Your task to perform on an android device: toggle javascript in the chrome app Image 0: 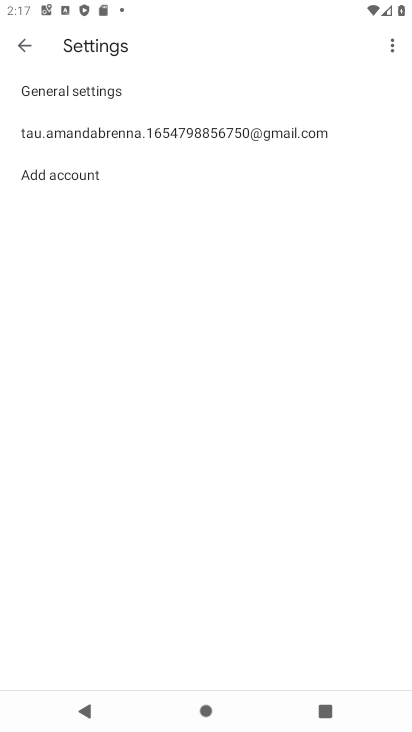
Step 0: press home button
Your task to perform on an android device: toggle javascript in the chrome app Image 1: 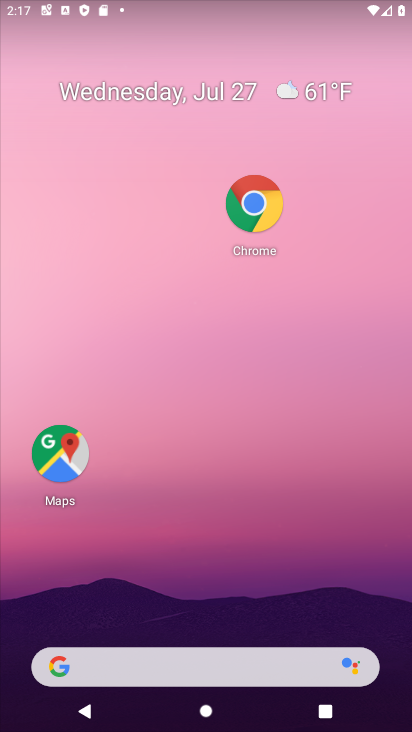
Step 1: click (254, 229)
Your task to perform on an android device: toggle javascript in the chrome app Image 2: 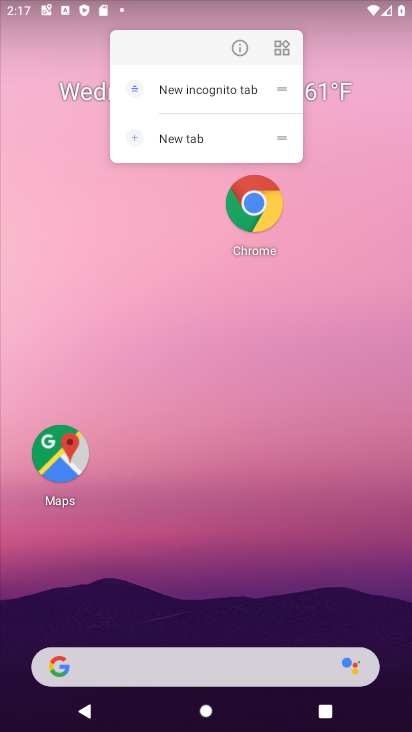
Step 2: click (255, 228)
Your task to perform on an android device: toggle javascript in the chrome app Image 3: 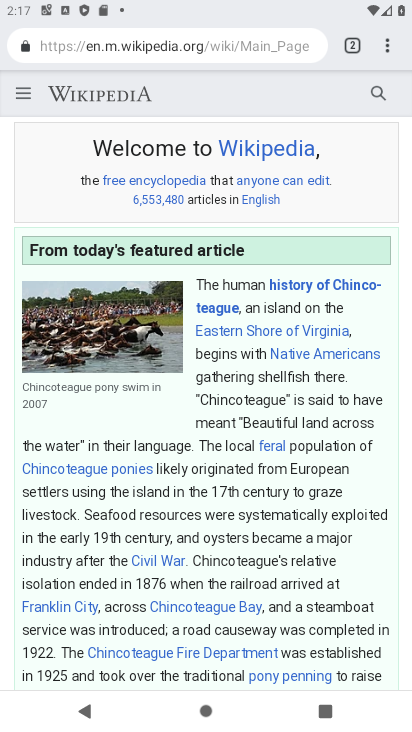
Step 3: click (392, 43)
Your task to perform on an android device: toggle javascript in the chrome app Image 4: 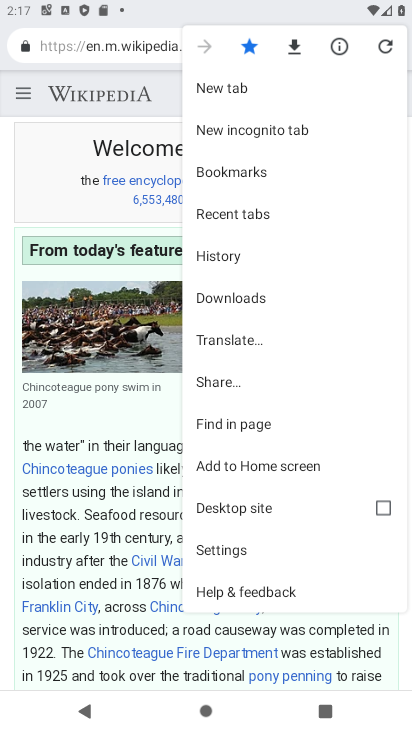
Step 4: click (222, 557)
Your task to perform on an android device: toggle javascript in the chrome app Image 5: 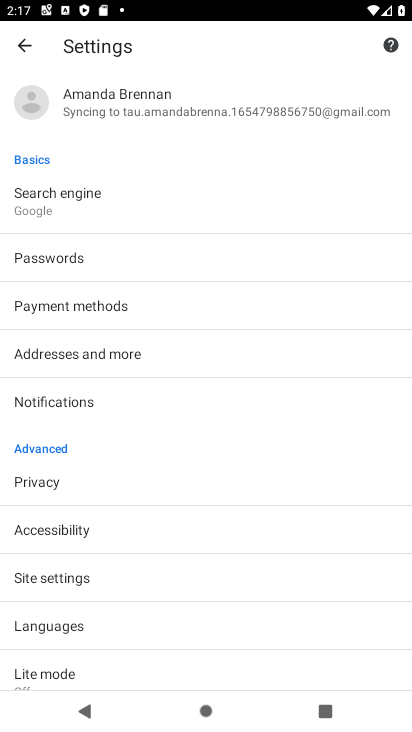
Step 5: click (96, 572)
Your task to perform on an android device: toggle javascript in the chrome app Image 6: 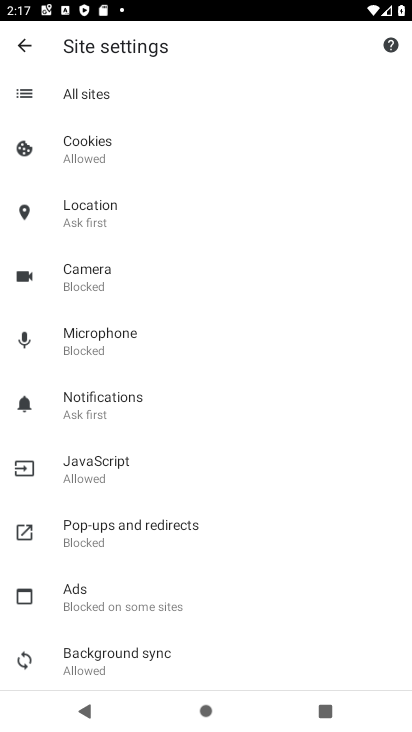
Step 6: click (95, 465)
Your task to perform on an android device: toggle javascript in the chrome app Image 7: 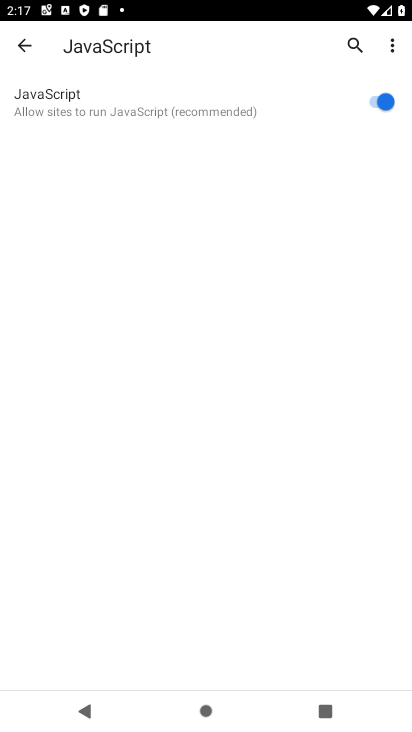
Step 7: click (372, 106)
Your task to perform on an android device: toggle javascript in the chrome app Image 8: 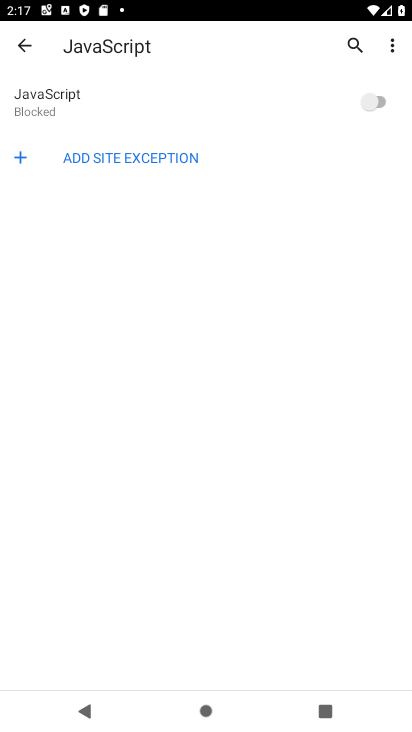
Step 8: task complete